Your task to perform on an android device: set an alarm Image 0: 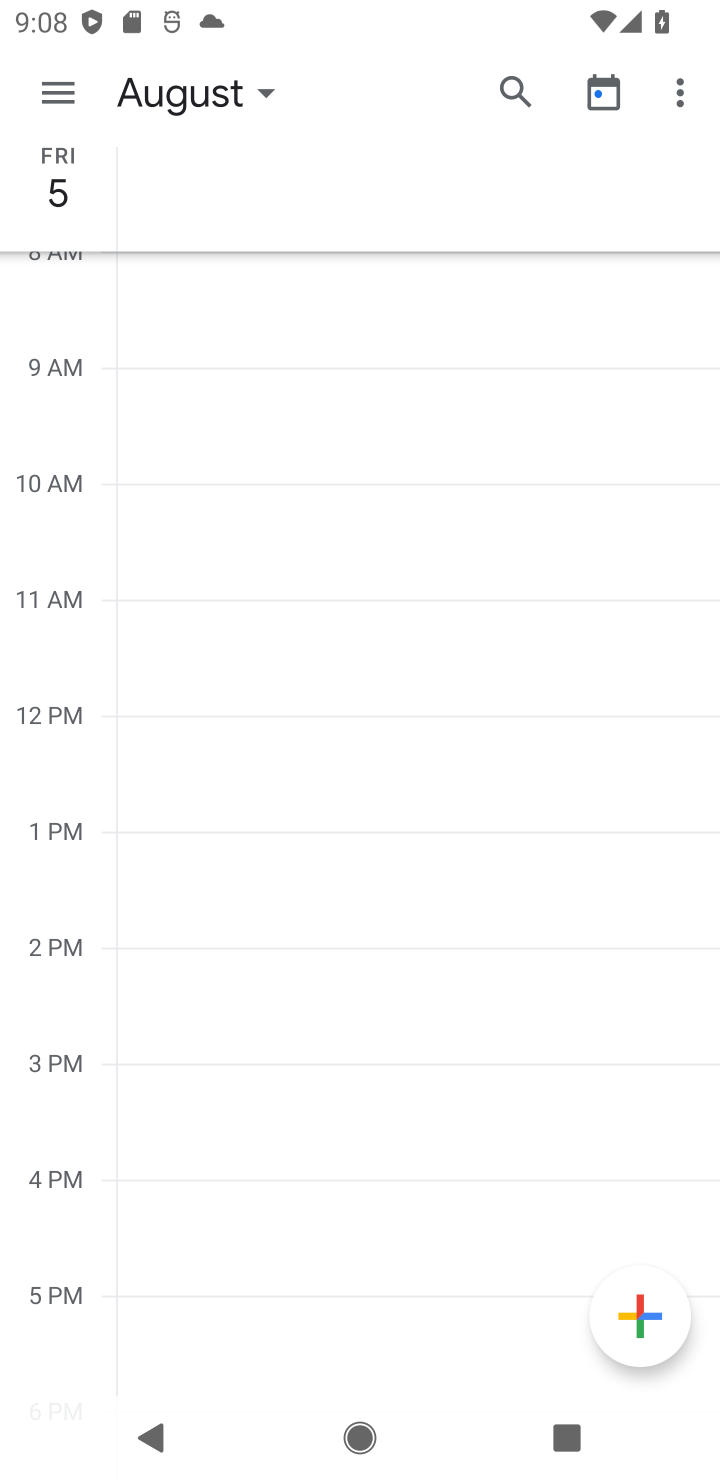
Step 0: press home button
Your task to perform on an android device: set an alarm Image 1: 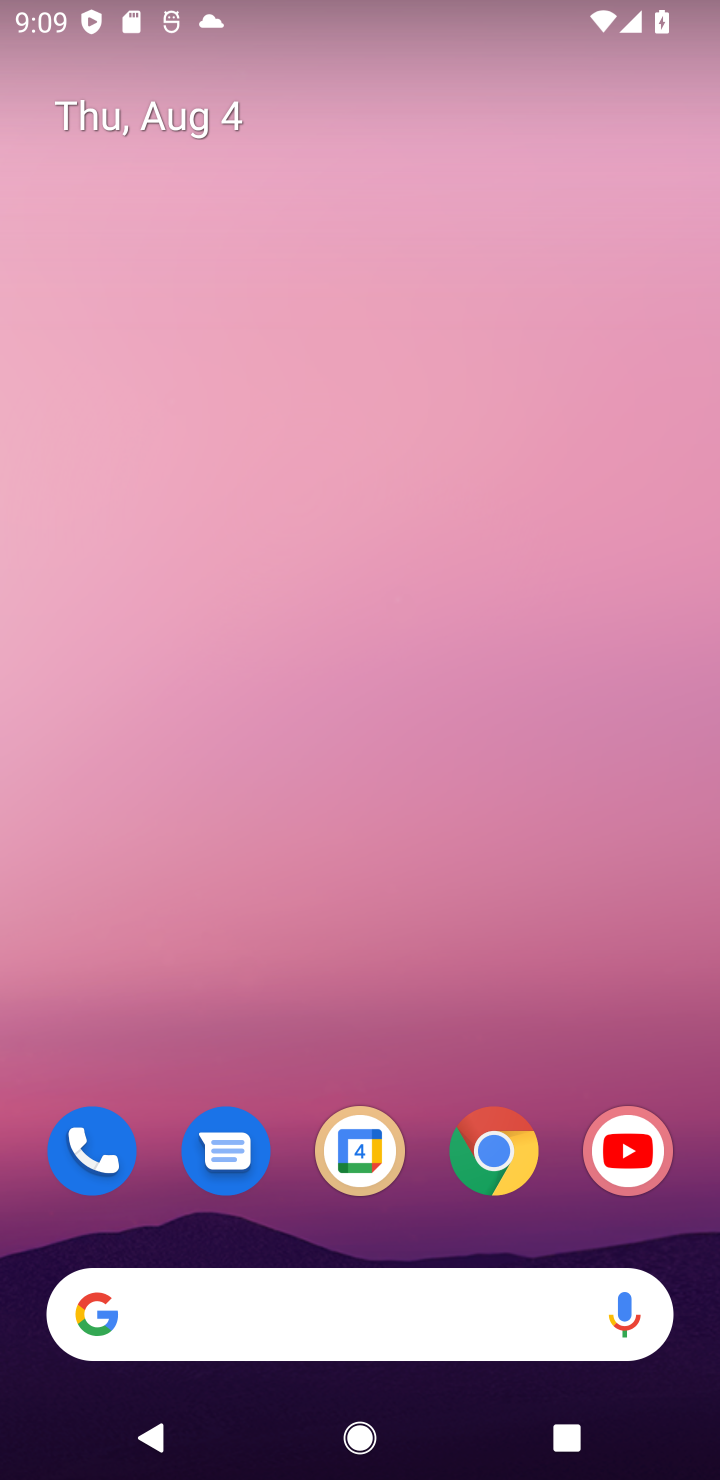
Step 1: drag from (450, 1023) to (374, 65)
Your task to perform on an android device: set an alarm Image 2: 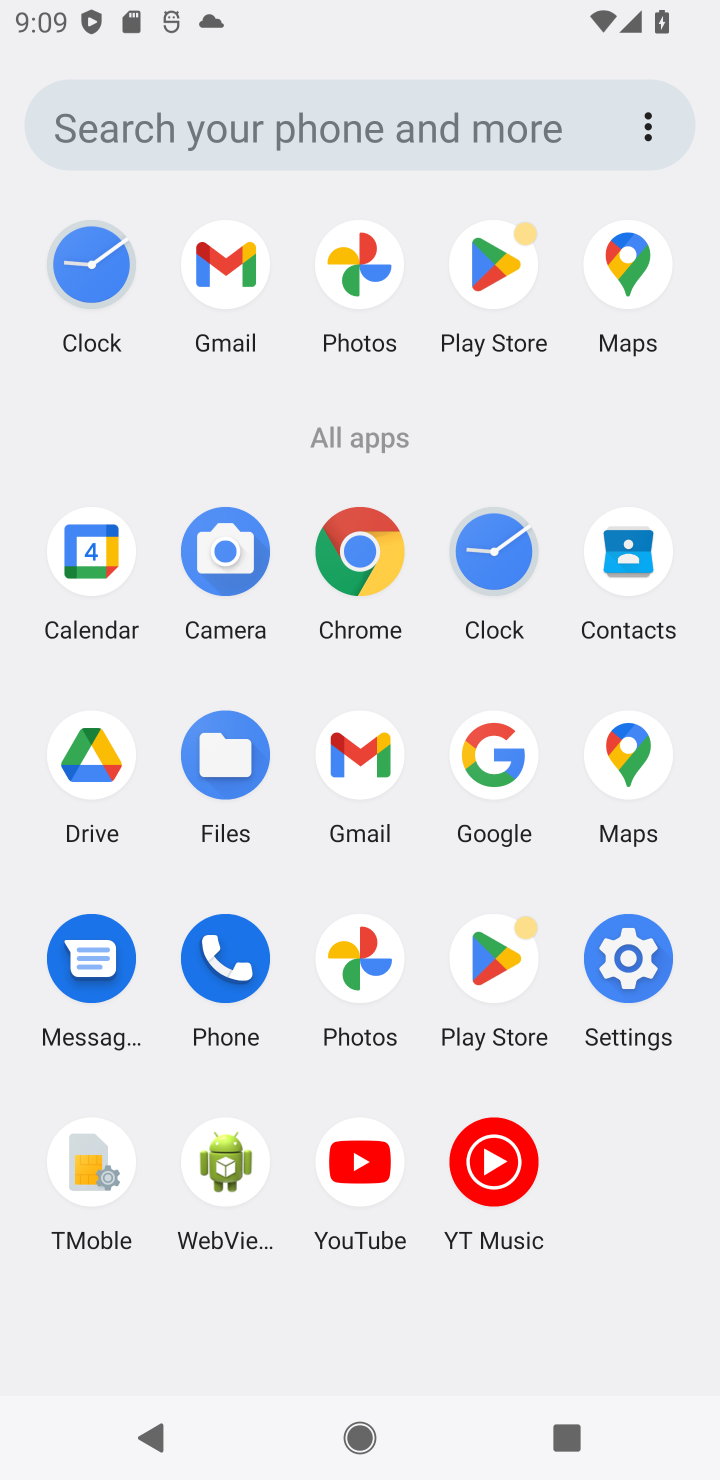
Step 2: click (511, 548)
Your task to perform on an android device: set an alarm Image 3: 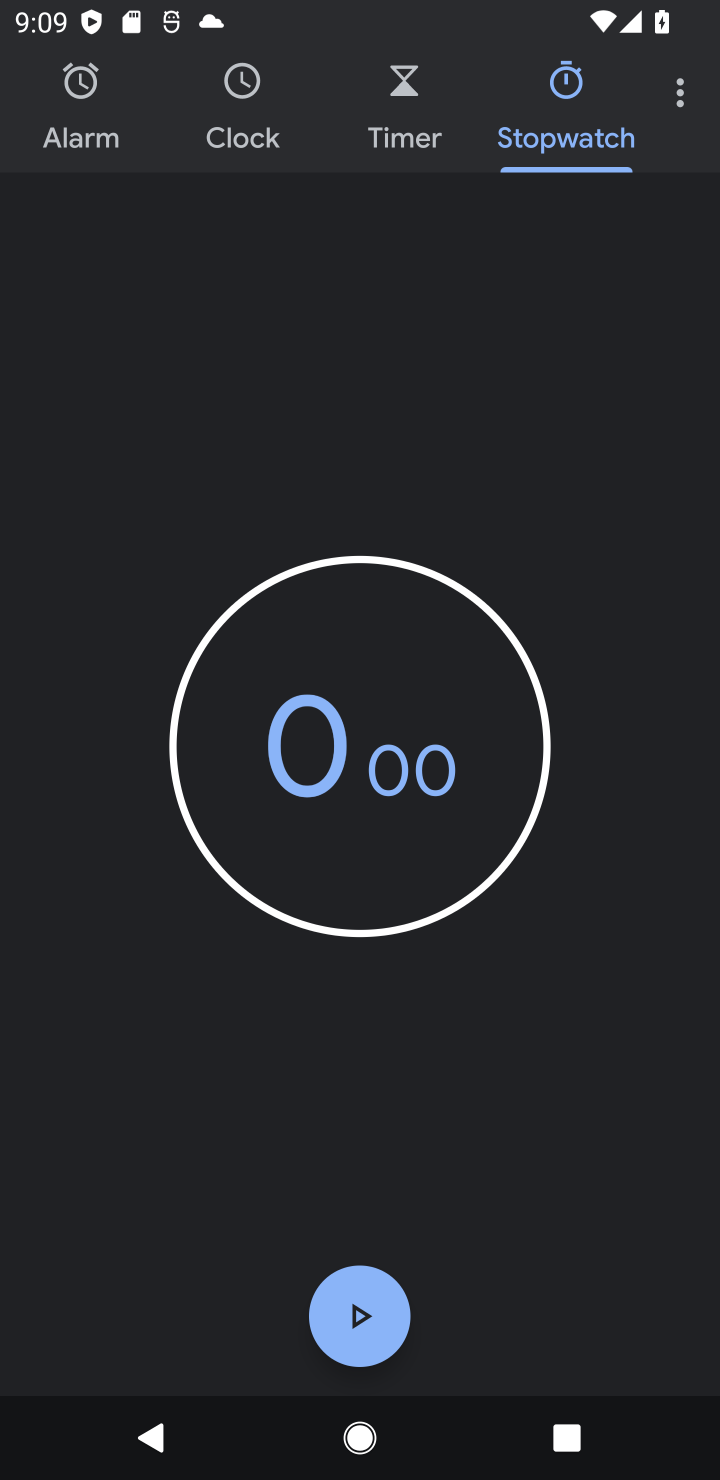
Step 3: click (103, 97)
Your task to perform on an android device: set an alarm Image 4: 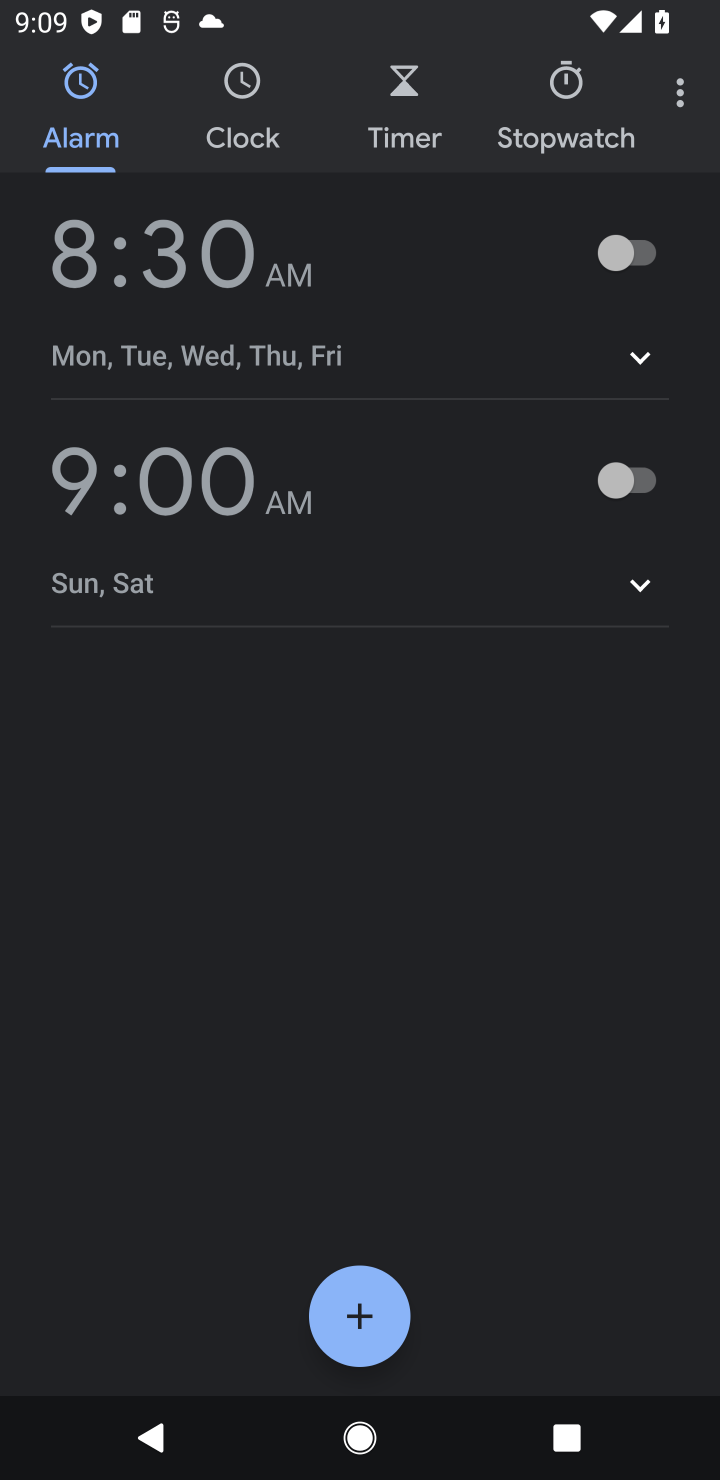
Step 4: click (626, 276)
Your task to perform on an android device: set an alarm Image 5: 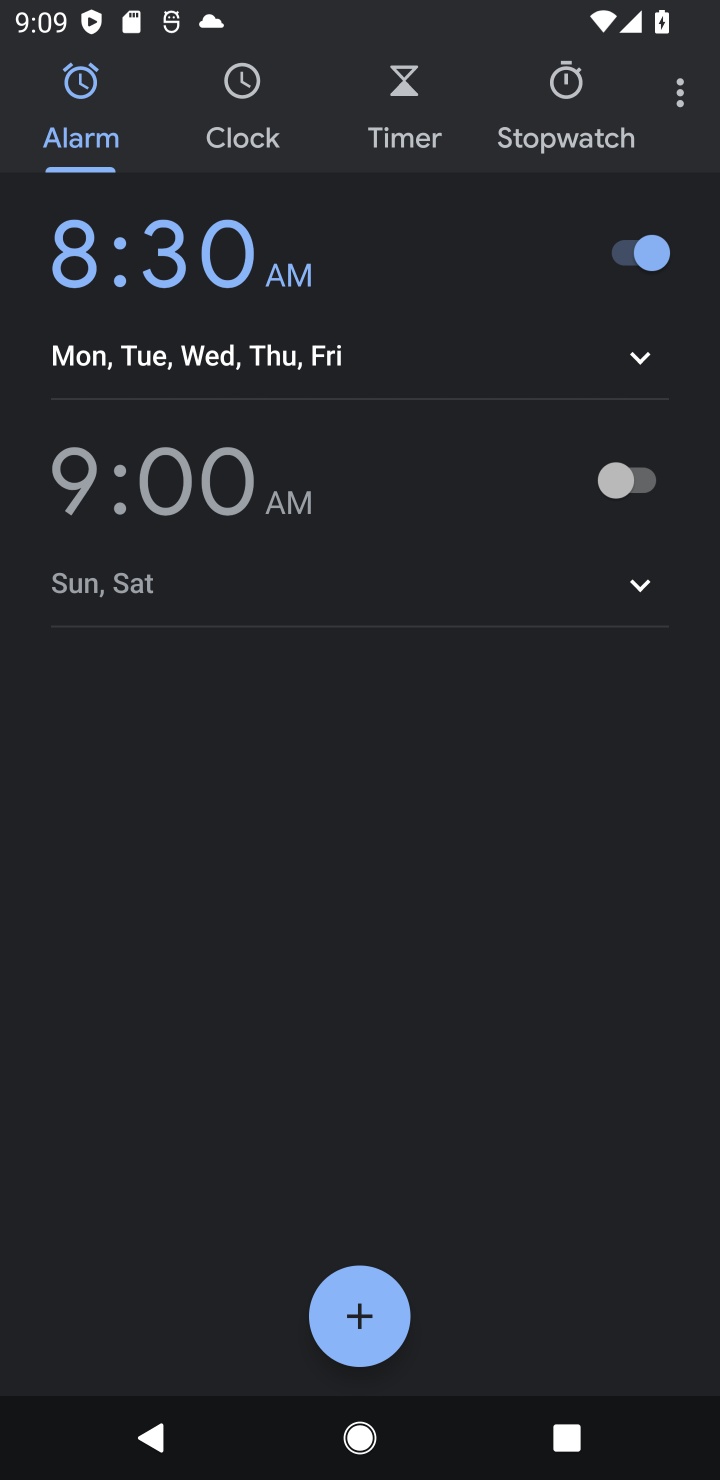
Step 5: task complete